Your task to perform on an android device: Turn on the flashlight Image 0: 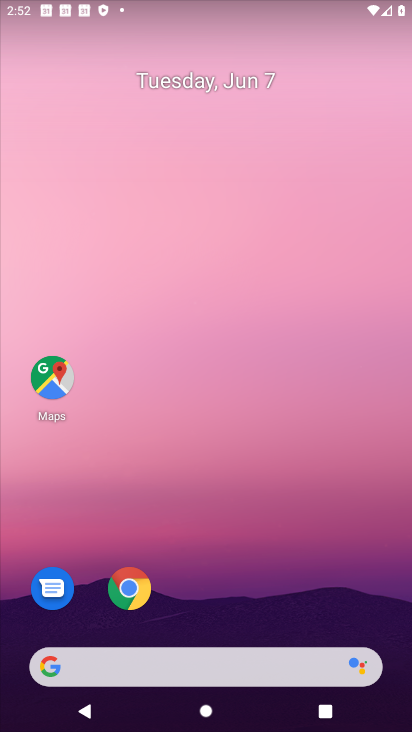
Step 0: click (226, 641)
Your task to perform on an android device: Turn on the flashlight Image 1: 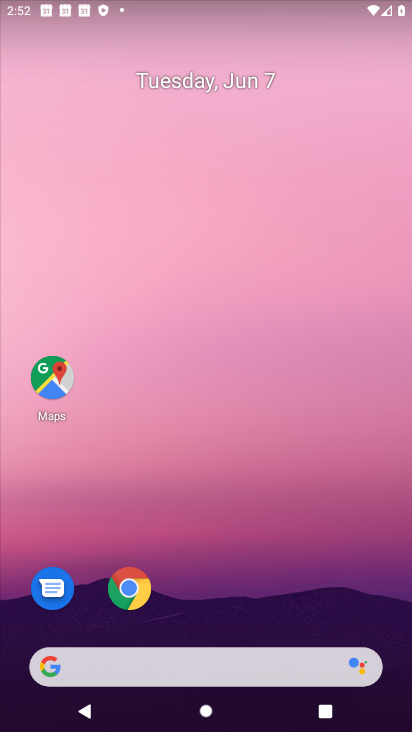
Step 1: drag from (268, 591) to (292, 172)
Your task to perform on an android device: Turn on the flashlight Image 2: 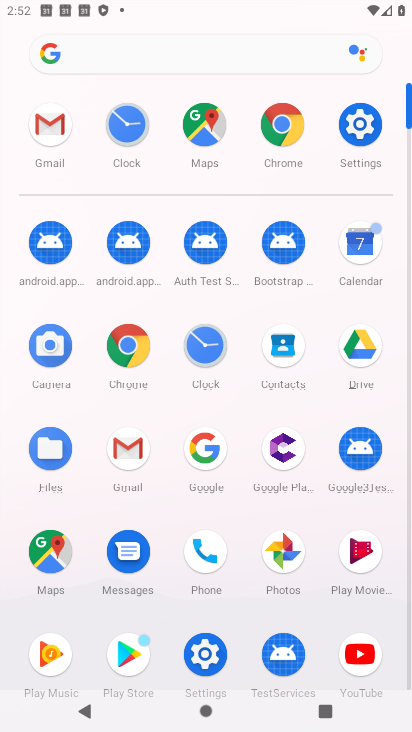
Step 2: click (354, 139)
Your task to perform on an android device: Turn on the flashlight Image 3: 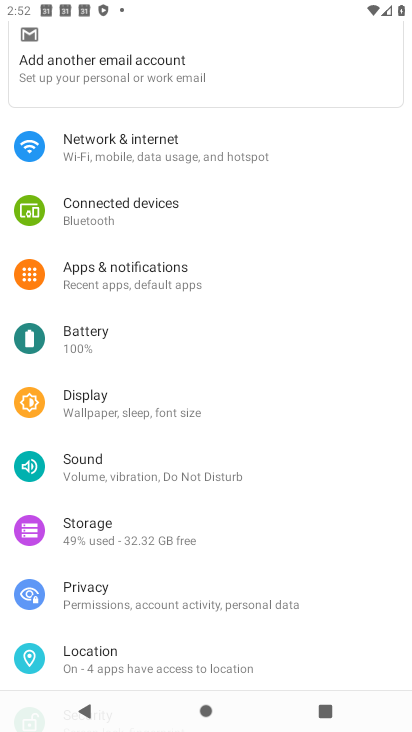
Step 3: task complete